Your task to perform on an android device: turn on javascript in the chrome app Image 0: 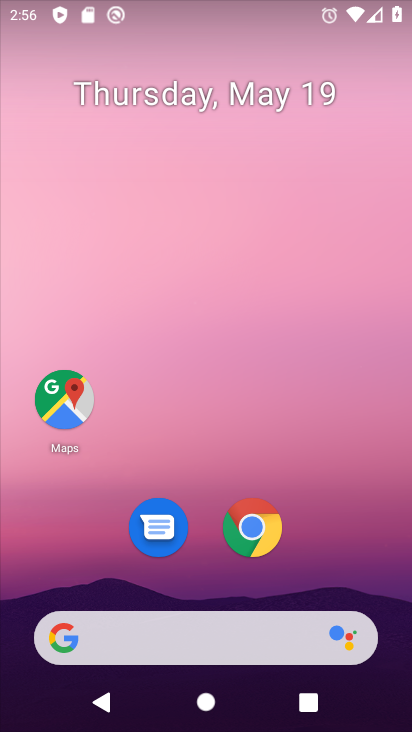
Step 0: click (261, 527)
Your task to perform on an android device: turn on javascript in the chrome app Image 1: 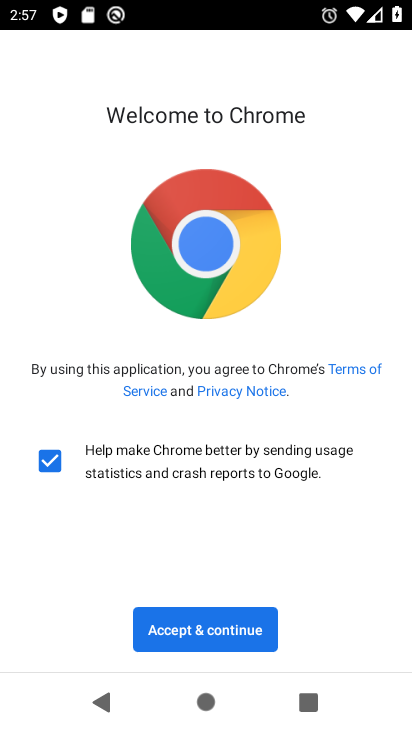
Step 1: click (166, 620)
Your task to perform on an android device: turn on javascript in the chrome app Image 2: 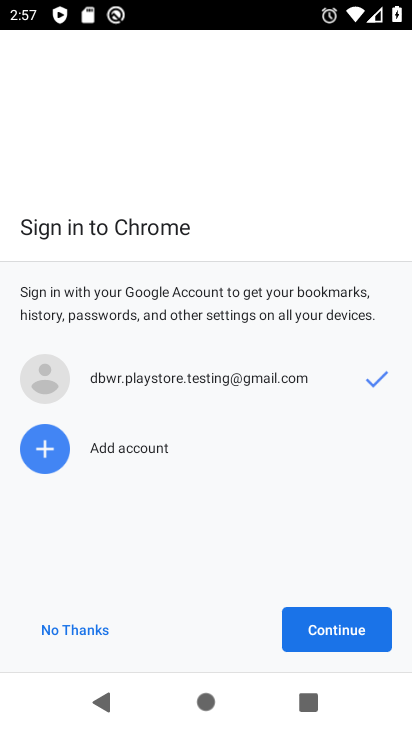
Step 2: click (352, 626)
Your task to perform on an android device: turn on javascript in the chrome app Image 3: 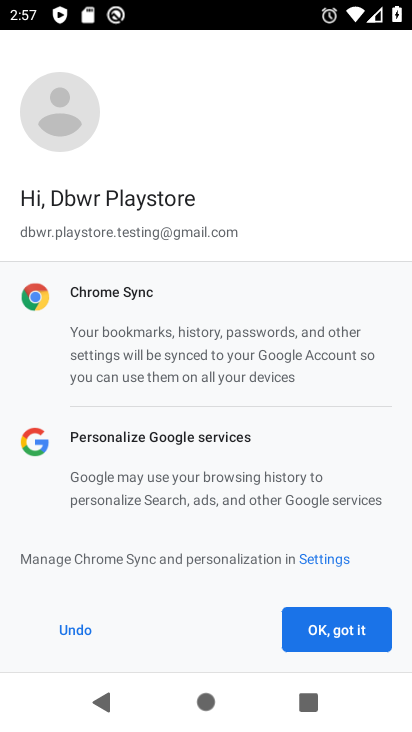
Step 3: click (339, 621)
Your task to perform on an android device: turn on javascript in the chrome app Image 4: 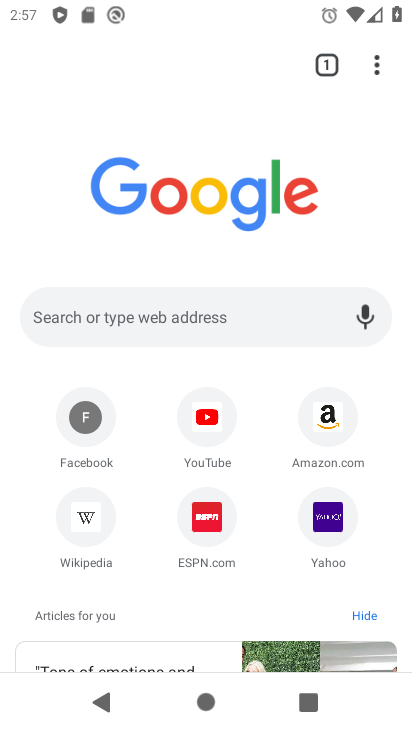
Step 4: click (373, 58)
Your task to perform on an android device: turn on javascript in the chrome app Image 5: 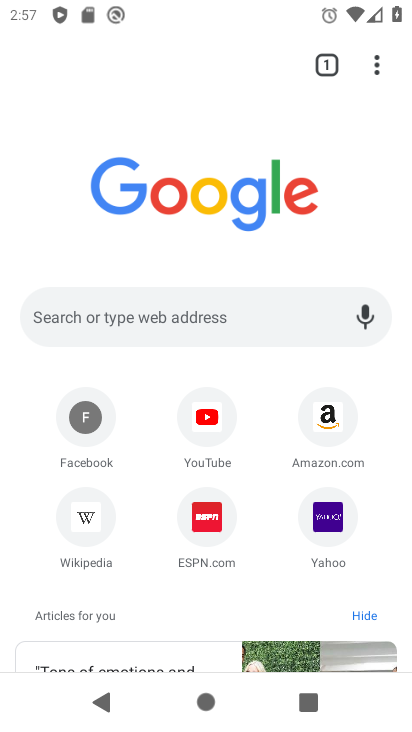
Step 5: drag from (378, 61) to (159, 548)
Your task to perform on an android device: turn on javascript in the chrome app Image 6: 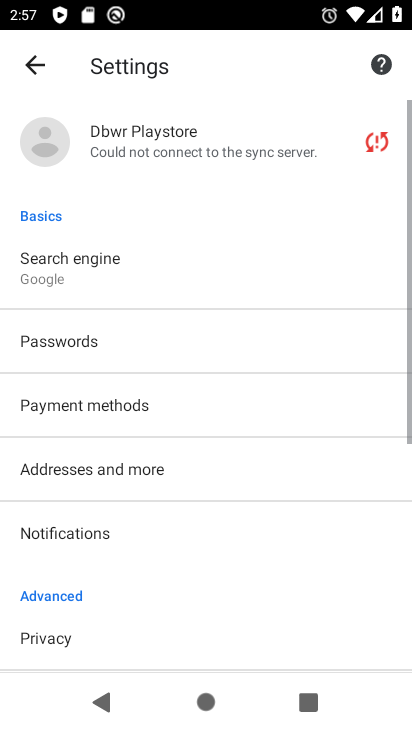
Step 6: drag from (102, 618) to (219, 122)
Your task to perform on an android device: turn on javascript in the chrome app Image 7: 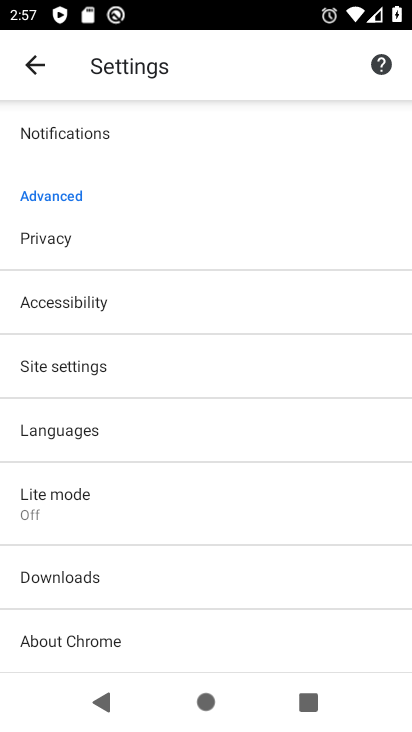
Step 7: click (68, 367)
Your task to perform on an android device: turn on javascript in the chrome app Image 8: 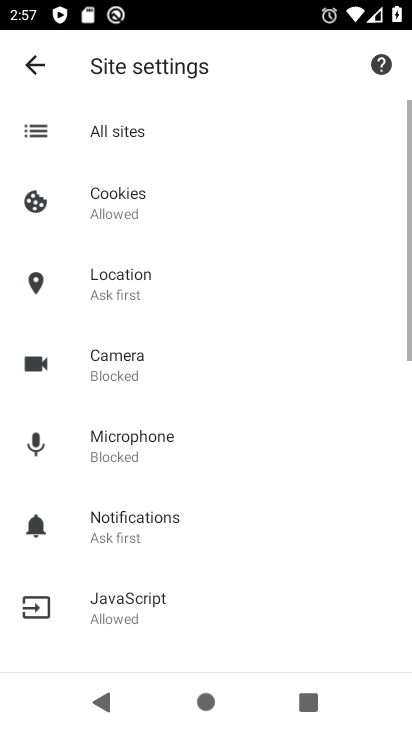
Step 8: click (145, 614)
Your task to perform on an android device: turn on javascript in the chrome app Image 9: 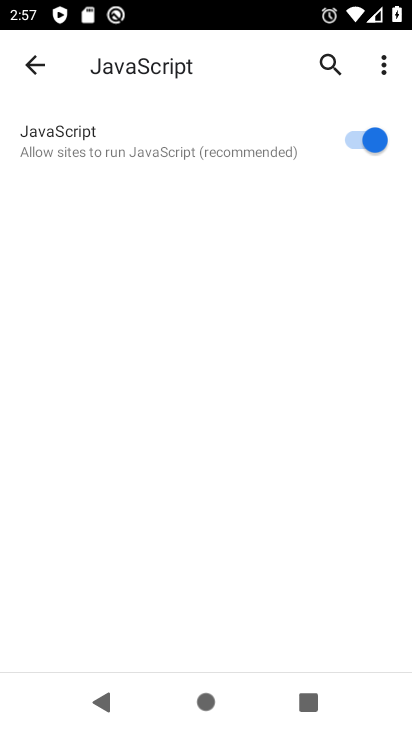
Step 9: task complete